Your task to perform on an android device: star an email in the gmail app Image 0: 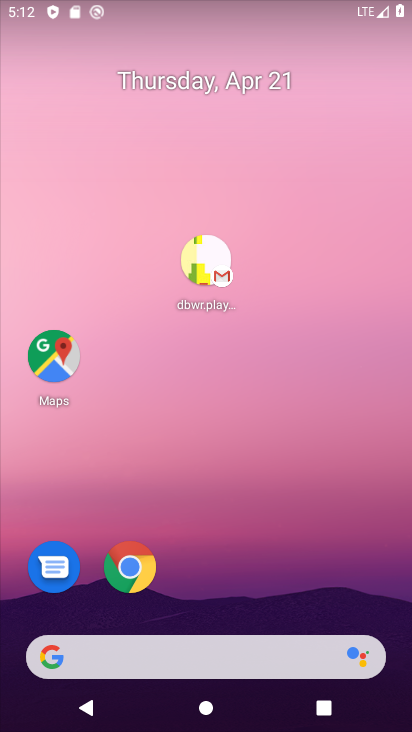
Step 0: drag from (203, 592) to (295, 73)
Your task to perform on an android device: star an email in the gmail app Image 1: 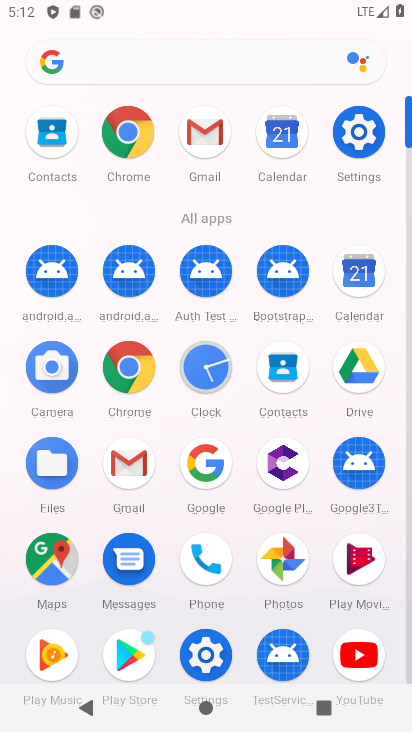
Step 1: click (124, 473)
Your task to perform on an android device: star an email in the gmail app Image 2: 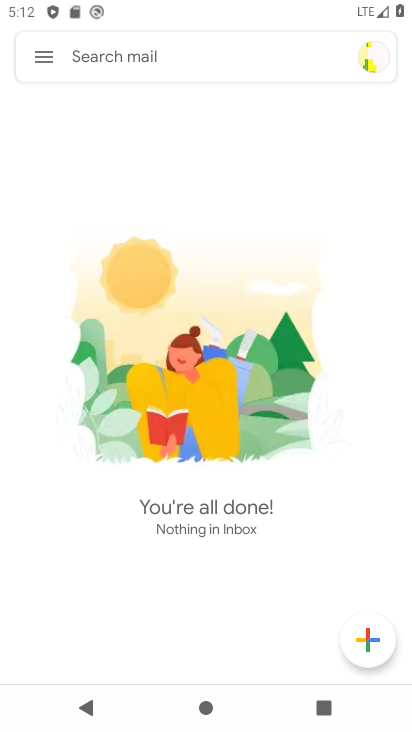
Step 2: click (49, 56)
Your task to perform on an android device: star an email in the gmail app Image 3: 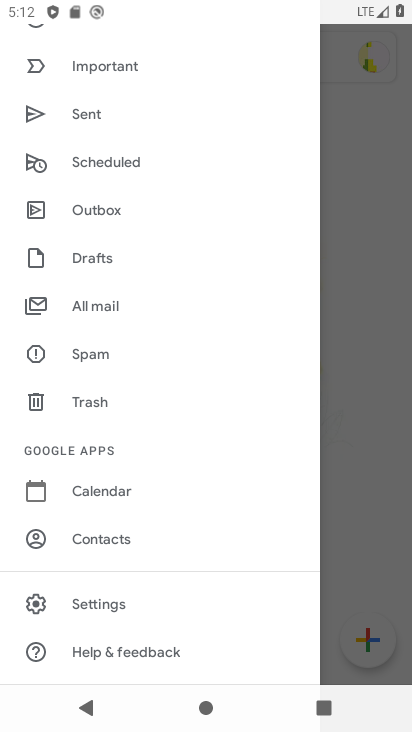
Step 3: click (71, 304)
Your task to perform on an android device: star an email in the gmail app Image 4: 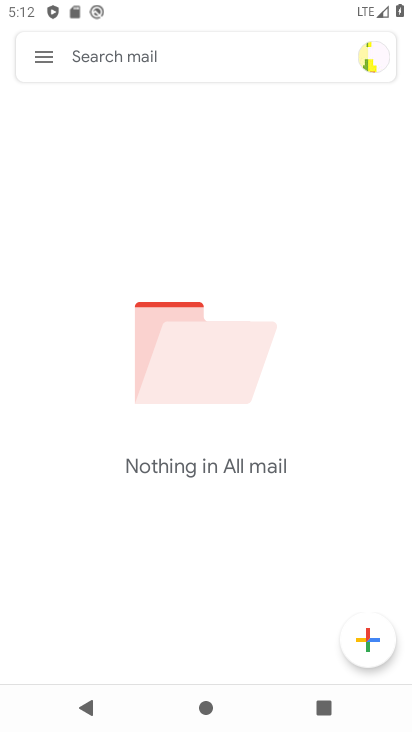
Step 4: task complete